Your task to perform on an android device: open device folders in google photos Image 0: 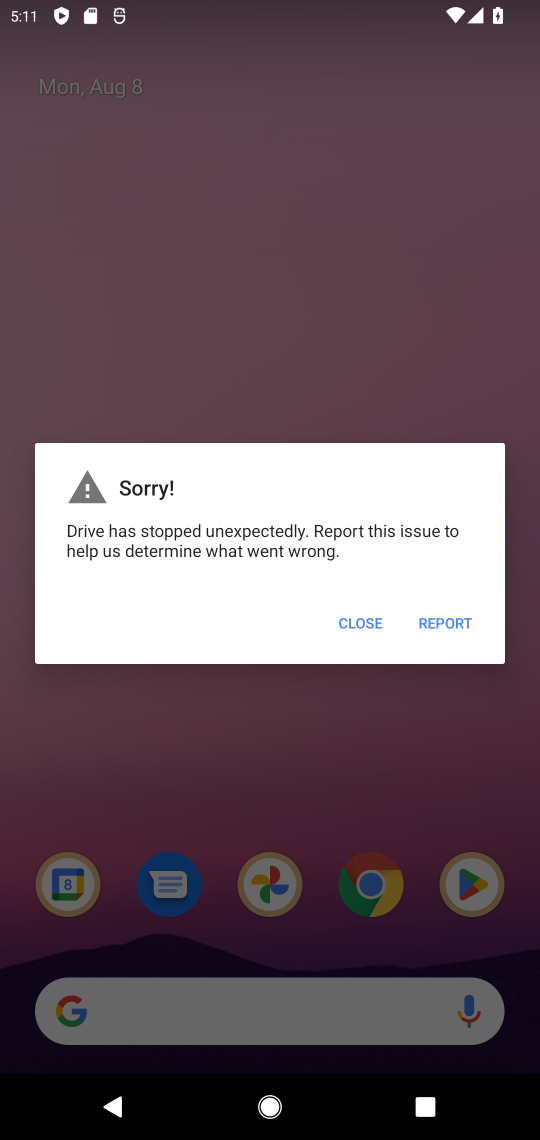
Step 0: press home button
Your task to perform on an android device: open device folders in google photos Image 1: 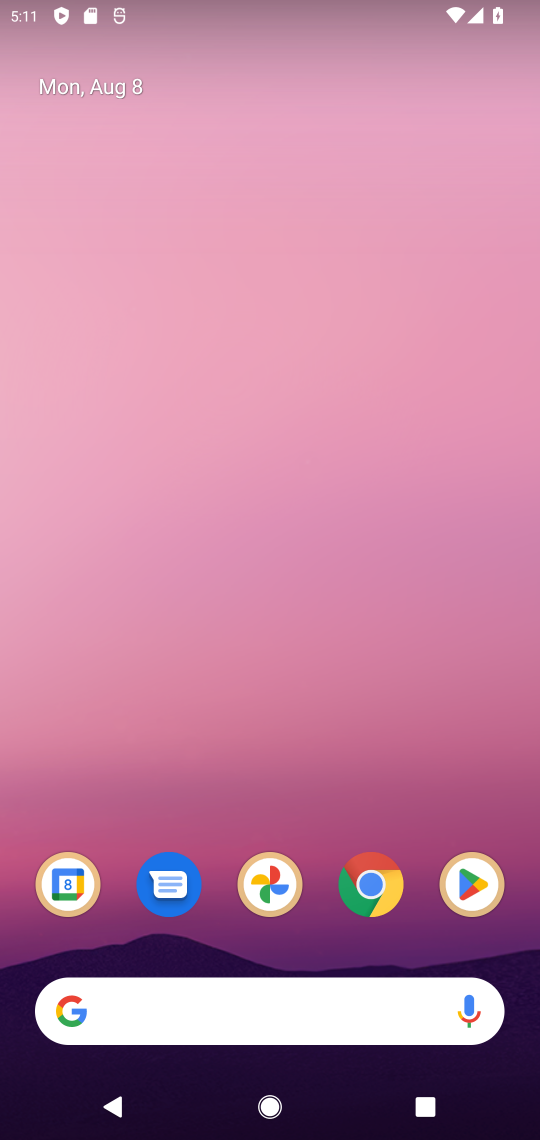
Step 1: drag from (408, 813) to (250, 53)
Your task to perform on an android device: open device folders in google photos Image 2: 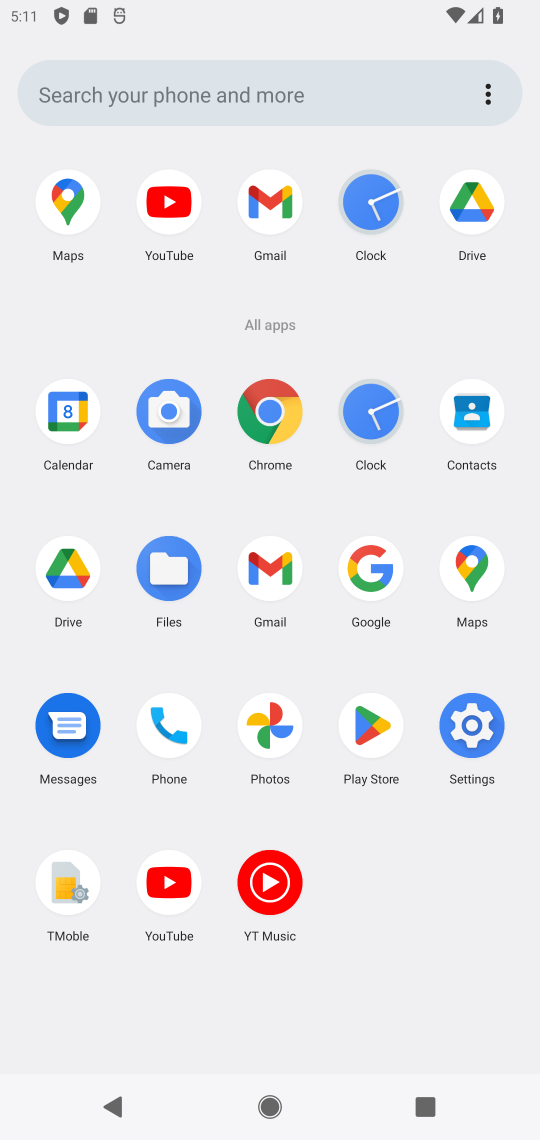
Step 2: click (277, 722)
Your task to perform on an android device: open device folders in google photos Image 3: 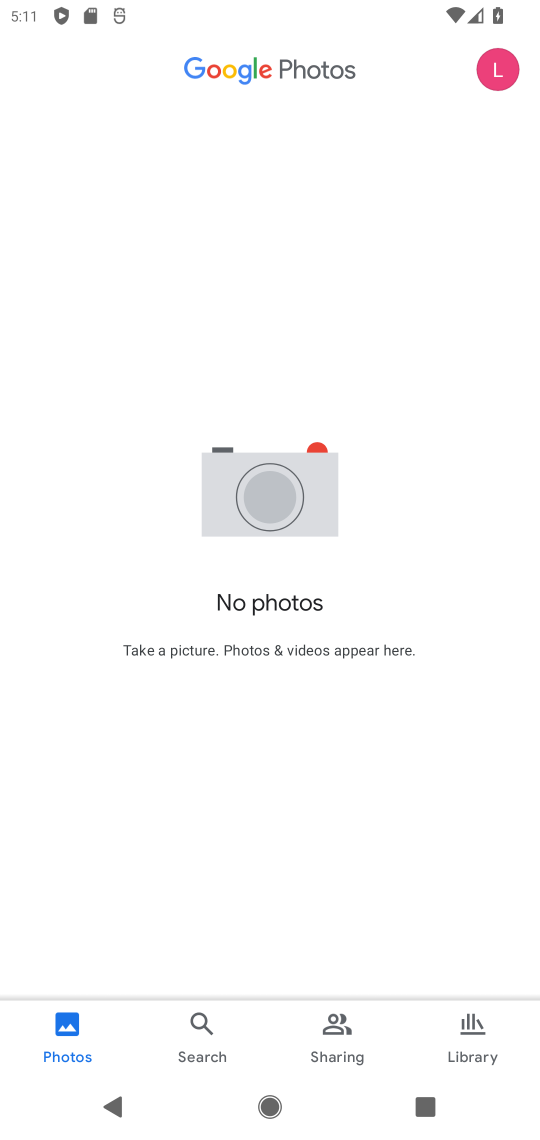
Step 3: click (461, 1050)
Your task to perform on an android device: open device folders in google photos Image 4: 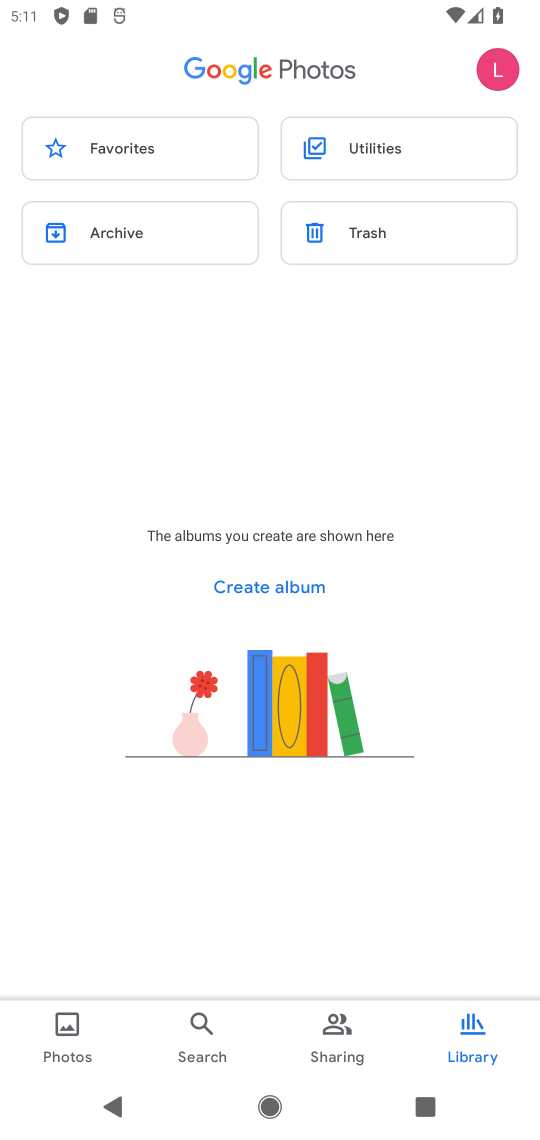
Step 4: click (395, 163)
Your task to perform on an android device: open device folders in google photos Image 5: 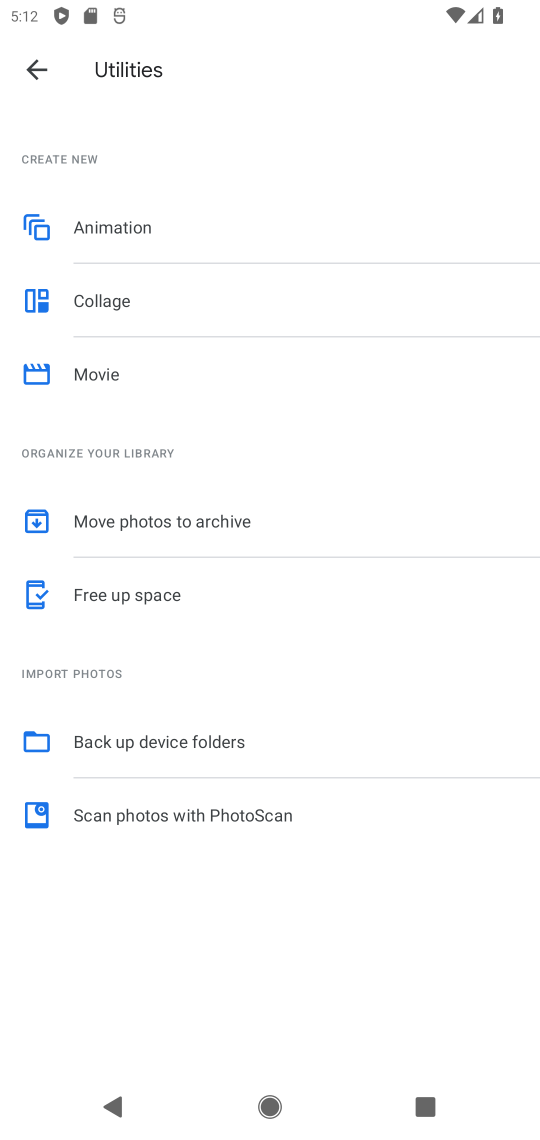
Step 5: task complete